Your task to perform on an android device: What's the weather going to be this weekend? Image 0: 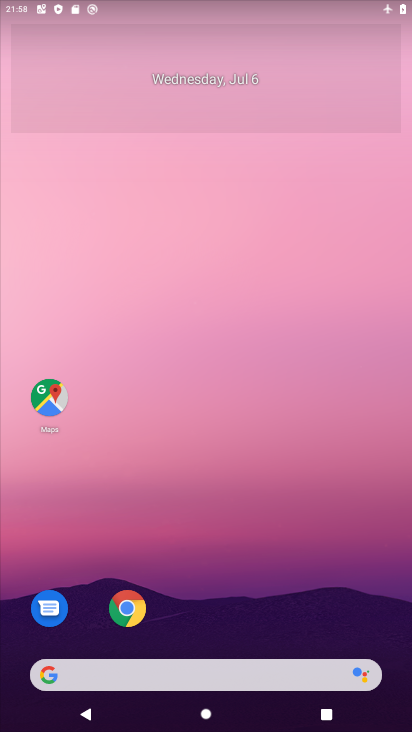
Step 0: click (178, 670)
Your task to perform on an android device: What's the weather going to be this weekend? Image 1: 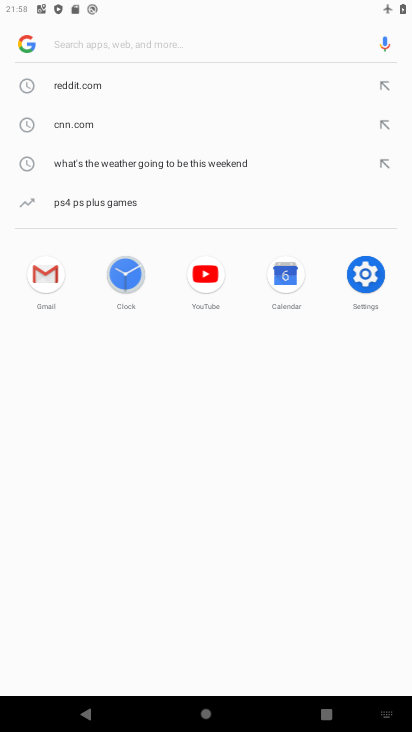
Step 1: click (177, 160)
Your task to perform on an android device: What's the weather going to be this weekend? Image 2: 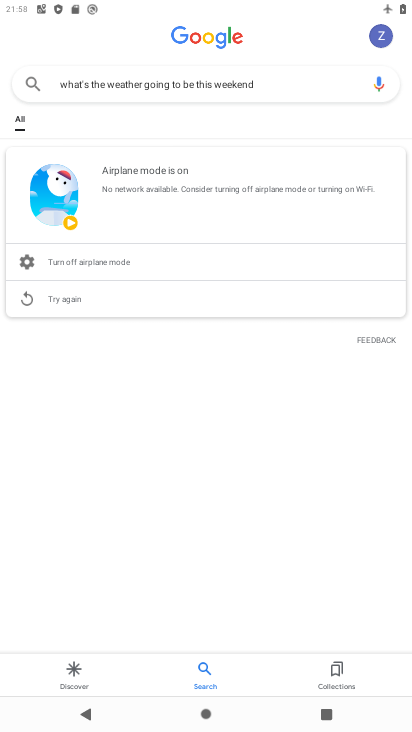
Step 2: task complete